Your task to perform on an android device: Go to Wikipedia Image 0: 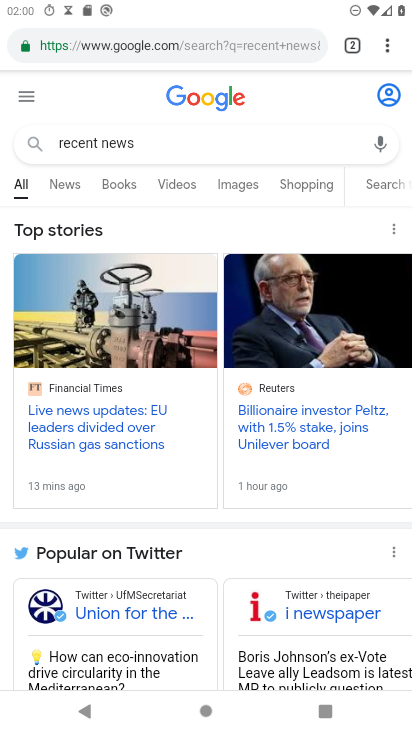
Step 0: press home button
Your task to perform on an android device: Go to Wikipedia Image 1: 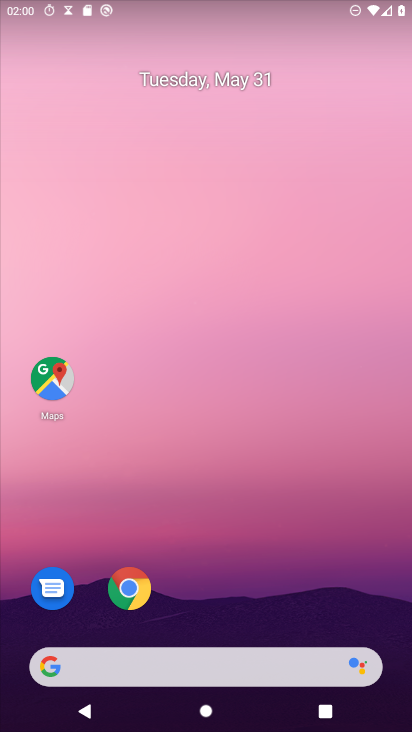
Step 1: drag from (254, 644) to (291, 11)
Your task to perform on an android device: Go to Wikipedia Image 2: 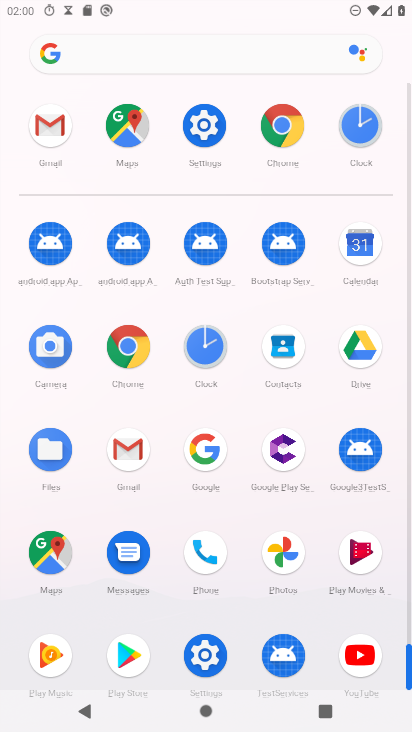
Step 2: click (131, 353)
Your task to perform on an android device: Go to Wikipedia Image 3: 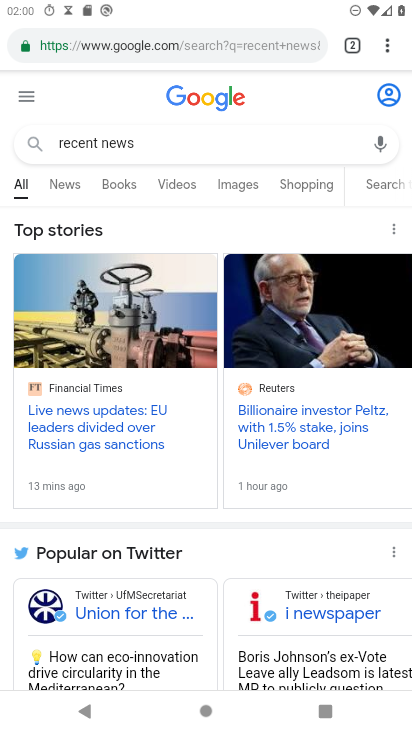
Step 3: drag from (388, 46) to (248, 96)
Your task to perform on an android device: Go to Wikipedia Image 4: 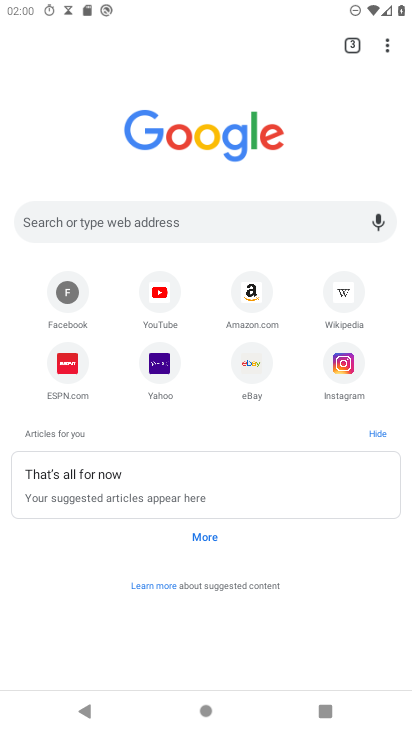
Step 4: click (347, 295)
Your task to perform on an android device: Go to Wikipedia Image 5: 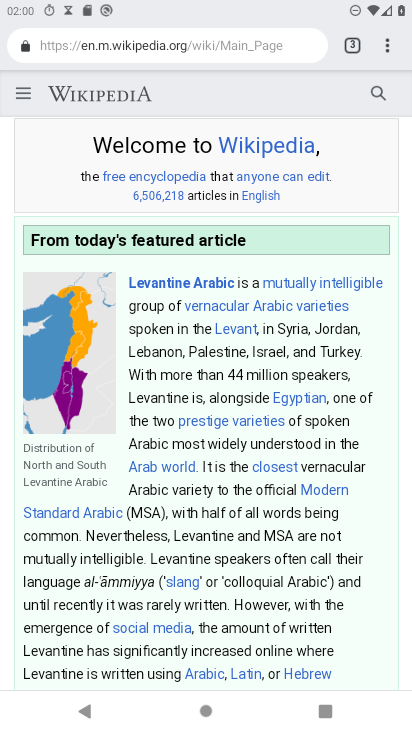
Step 5: task complete